Your task to perform on an android device: Open privacy settings Image 0: 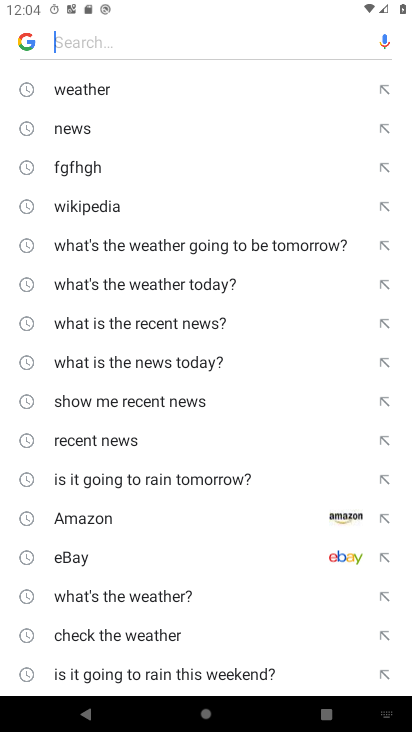
Step 0: press home button
Your task to perform on an android device: Open privacy settings Image 1: 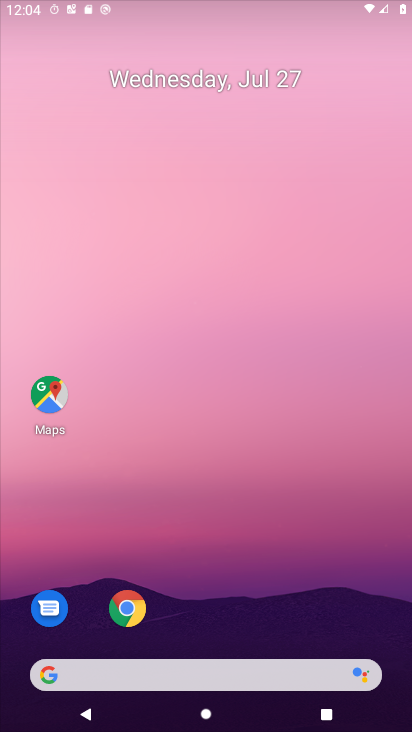
Step 1: drag from (184, 610) to (180, 73)
Your task to perform on an android device: Open privacy settings Image 2: 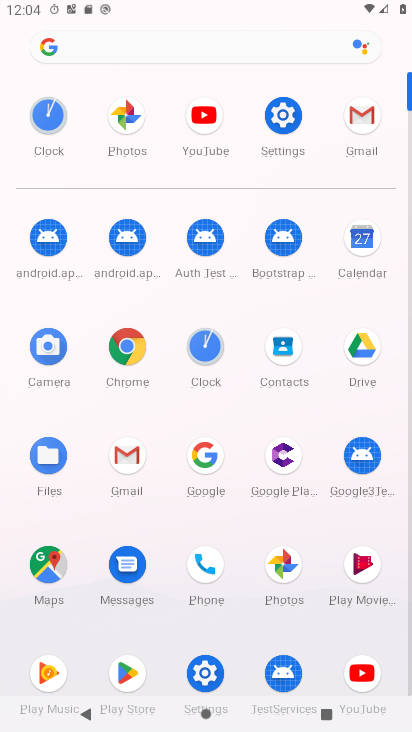
Step 2: click (275, 125)
Your task to perform on an android device: Open privacy settings Image 3: 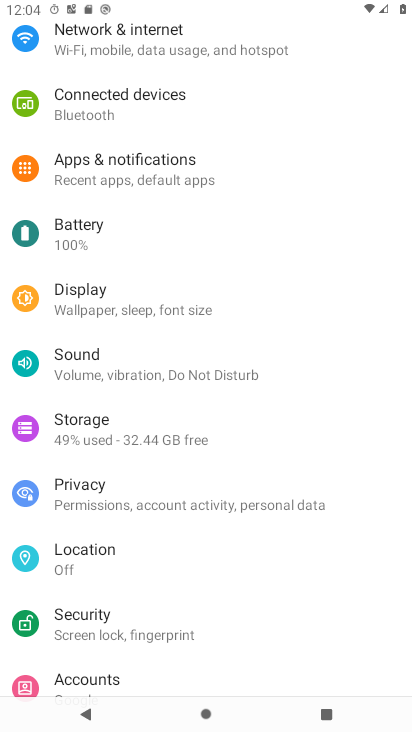
Step 3: click (101, 495)
Your task to perform on an android device: Open privacy settings Image 4: 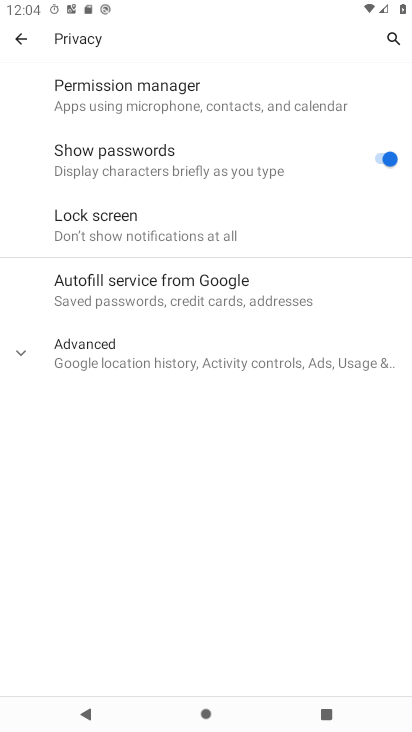
Step 4: task complete